Your task to perform on an android device: change notification settings in the gmail app Image 0: 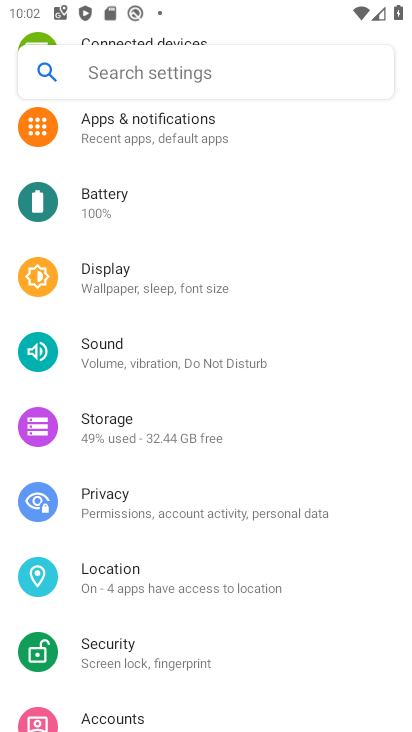
Step 0: click (176, 128)
Your task to perform on an android device: change notification settings in the gmail app Image 1: 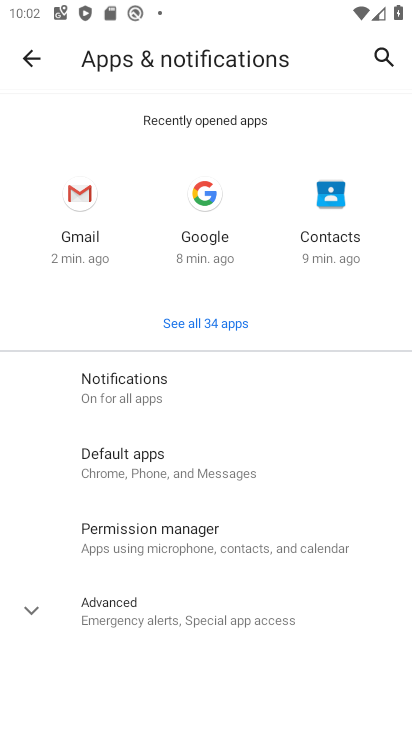
Step 1: click (78, 198)
Your task to perform on an android device: change notification settings in the gmail app Image 2: 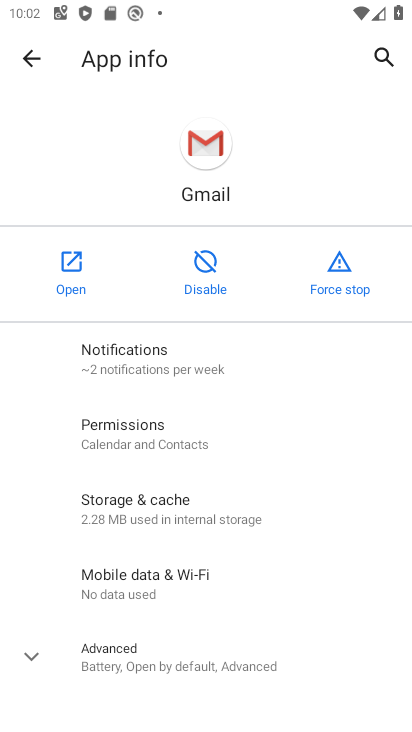
Step 2: click (207, 365)
Your task to perform on an android device: change notification settings in the gmail app Image 3: 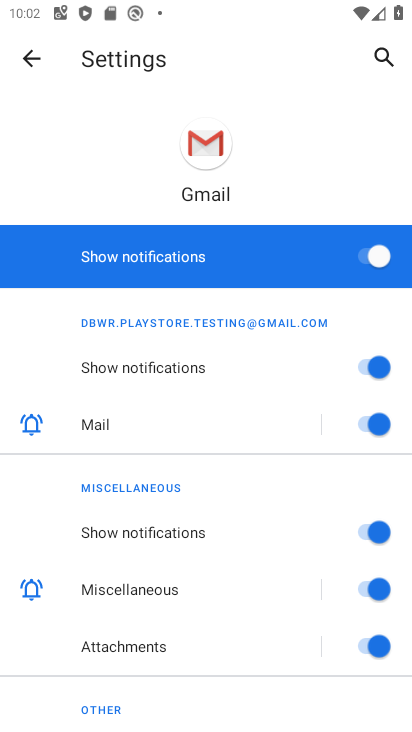
Step 3: click (362, 263)
Your task to perform on an android device: change notification settings in the gmail app Image 4: 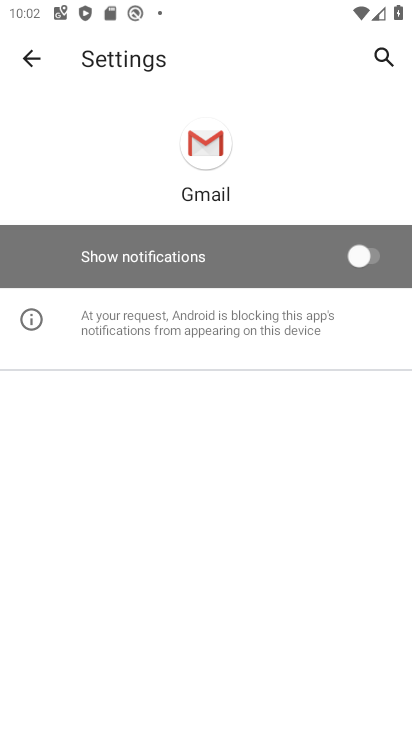
Step 4: task complete